Your task to perform on an android device: change keyboard looks Image 0: 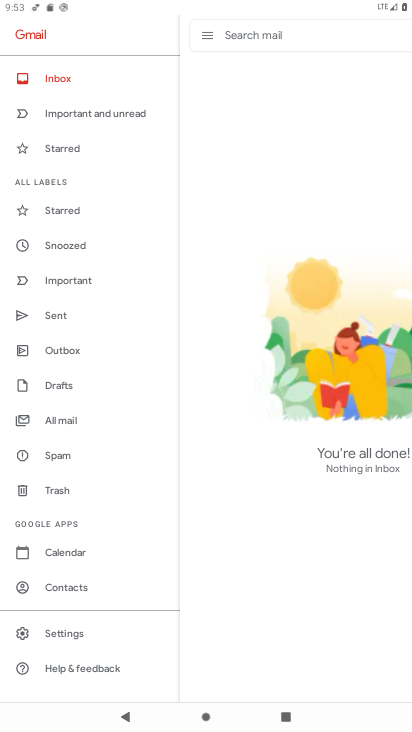
Step 0: press home button
Your task to perform on an android device: change keyboard looks Image 1: 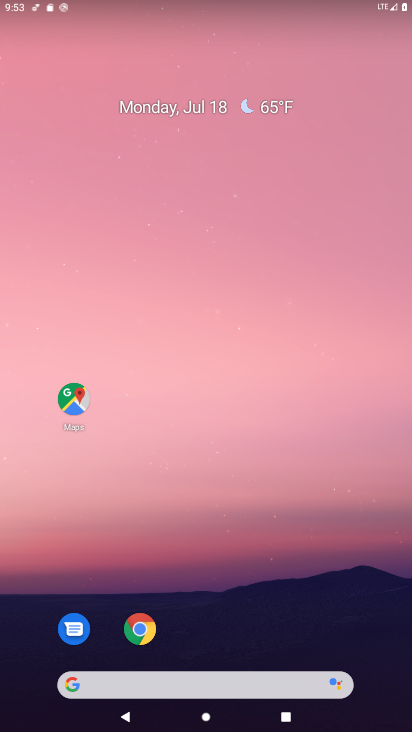
Step 1: drag from (214, 541) to (227, 146)
Your task to perform on an android device: change keyboard looks Image 2: 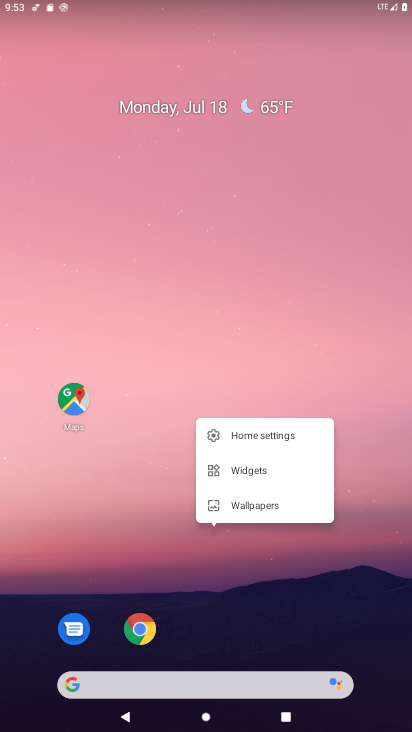
Step 2: click (104, 548)
Your task to perform on an android device: change keyboard looks Image 3: 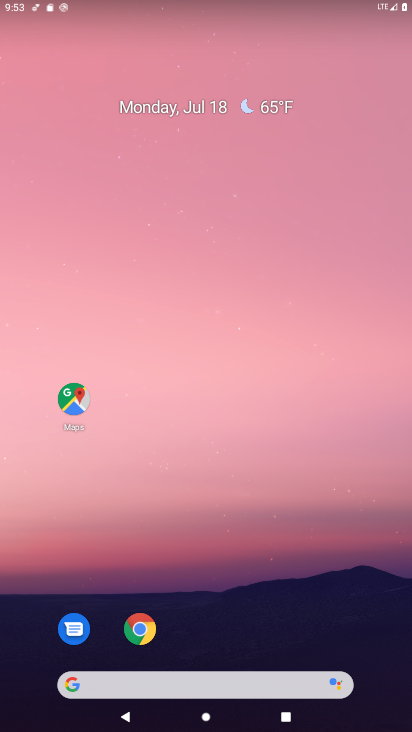
Step 3: drag from (300, 596) to (263, 103)
Your task to perform on an android device: change keyboard looks Image 4: 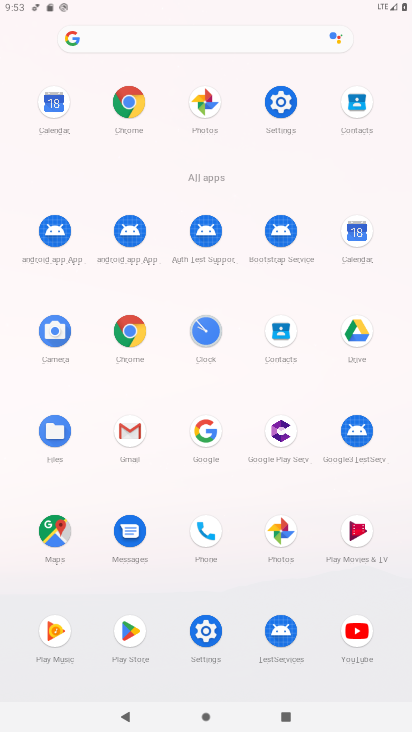
Step 4: click (263, 103)
Your task to perform on an android device: change keyboard looks Image 5: 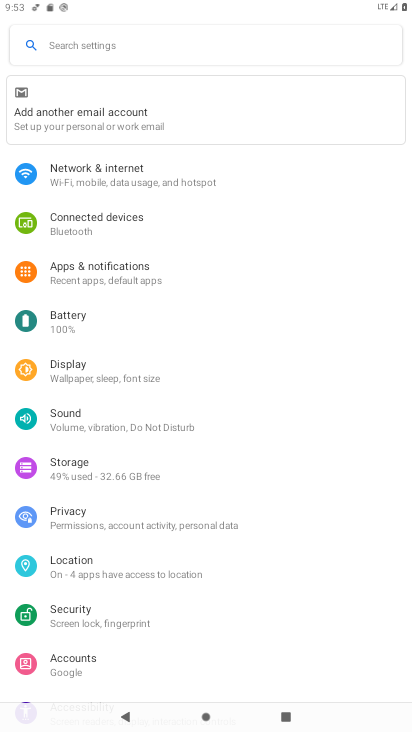
Step 5: drag from (226, 631) to (242, 137)
Your task to perform on an android device: change keyboard looks Image 6: 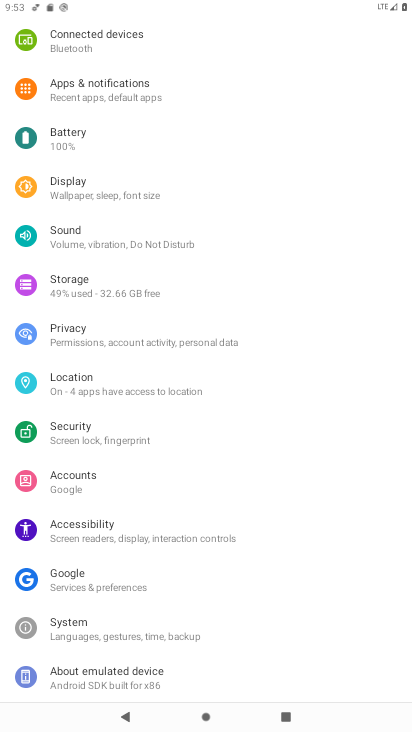
Step 6: drag from (261, 637) to (273, 307)
Your task to perform on an android device: change keyboard looks Image 7: 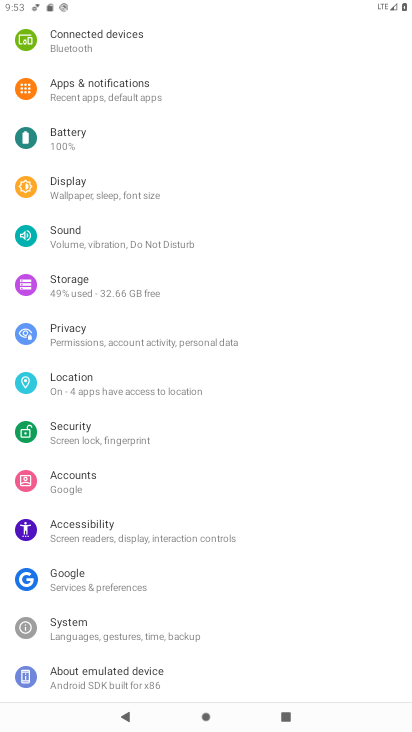
Step 7: click (64, 623)
Your task to perform on an android device: change keyboard looks Image 8: 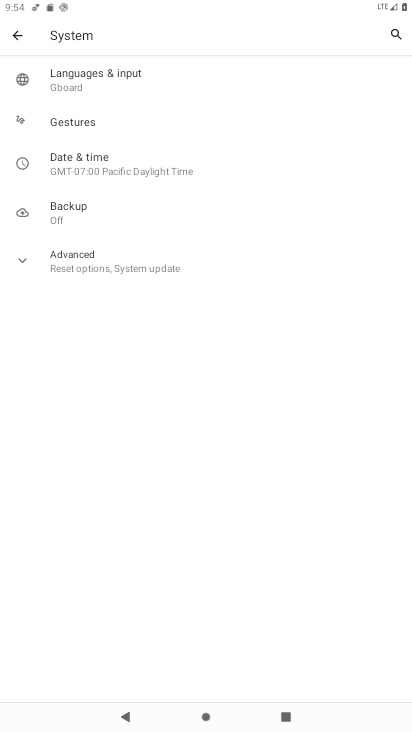
Step 8: click (77, 72)
Your task to perform on an android device: change keyboard looks Image 9: 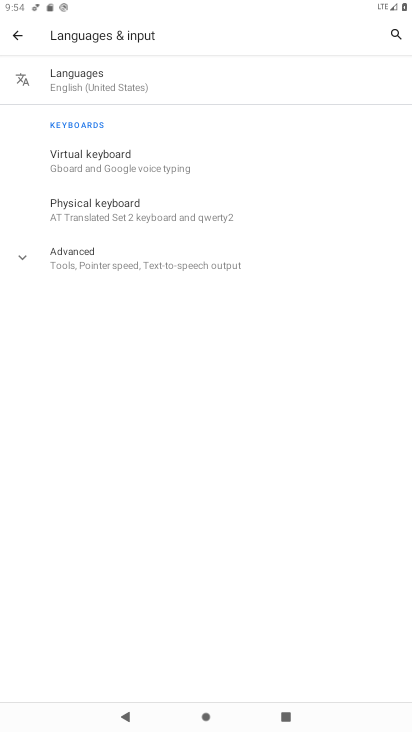
Step 9: click (88, 149)
Your task to perform on an android device: change keyboard looks Image 10: 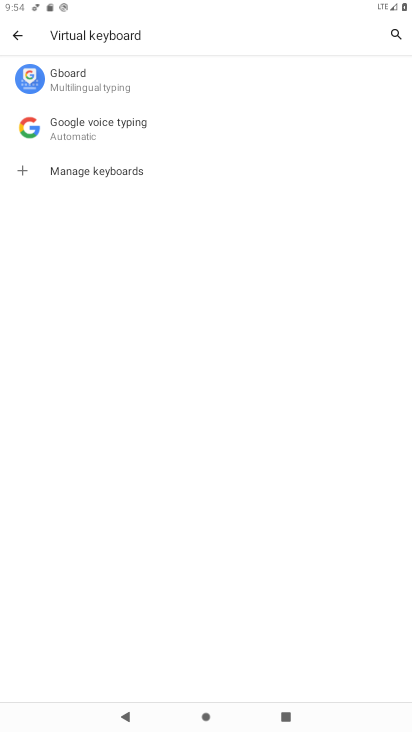
Step 10: click (64, 68)
Your task to perform on an android device: change keyboard looks Image 11: 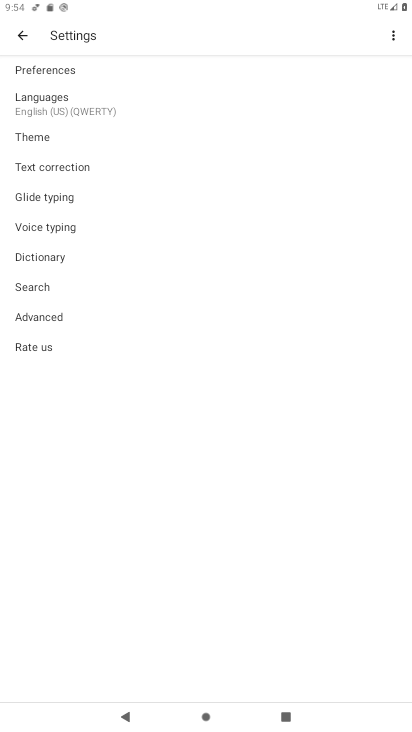
Step 11: click (34, 131)
Your task to perform on an android device: change keyboard looks Image 12: 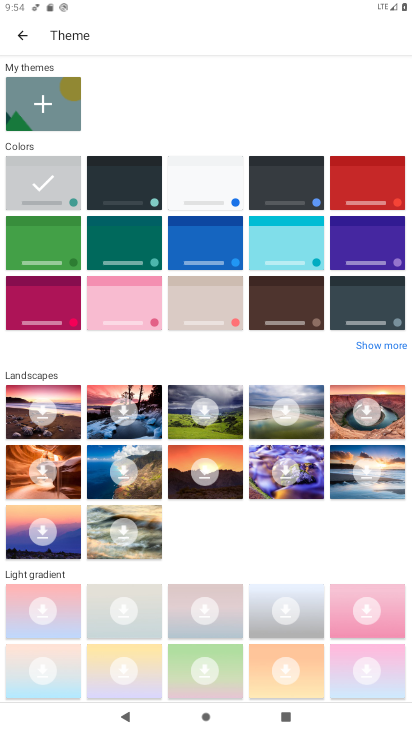
Step 12: click (129, 193)
Your task to perform on an android device: change keyboard looks Image 13: 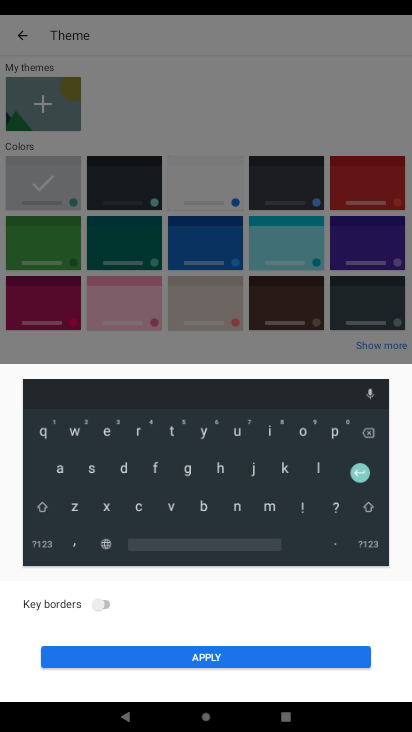
Step 13: click (202, 656)
Your task to perform on an android device: change keyboard looks Image 14: 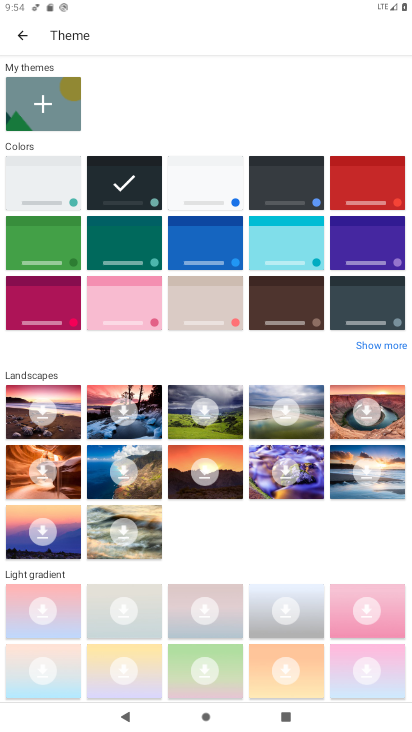
Step 14: task complete